Your task to perform on an android device: turn off airplane mode Image 0: 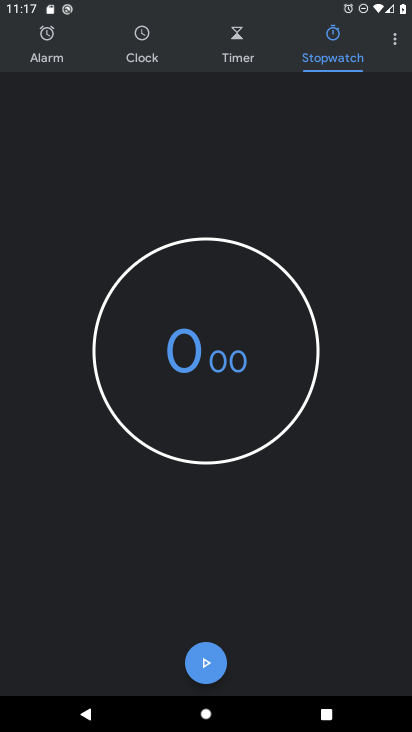
Step 0: press home button
Your task to perform on an android device: turn off airplane mode Image 1: 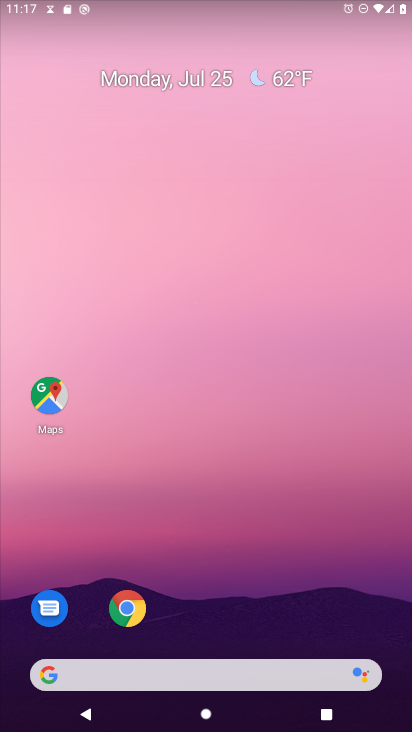
Step 1: drag from (205, 677) to (183, 134)
Your task to perform on an android device: turn off airplane mode Image 2: 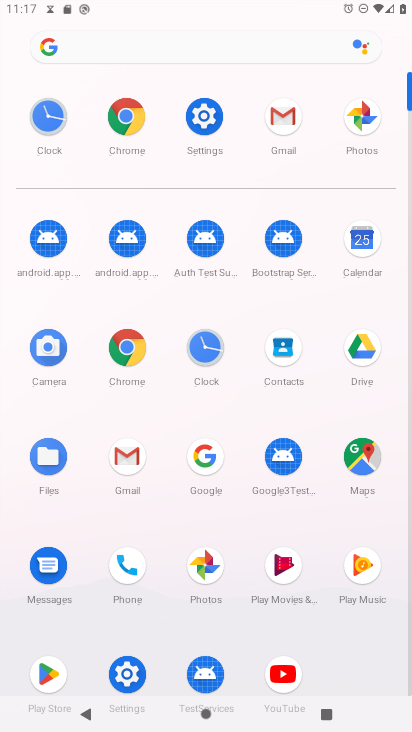
Step 2: click (200, 114)
Your task to perform on an android device: turn off airplane mode Image 3: 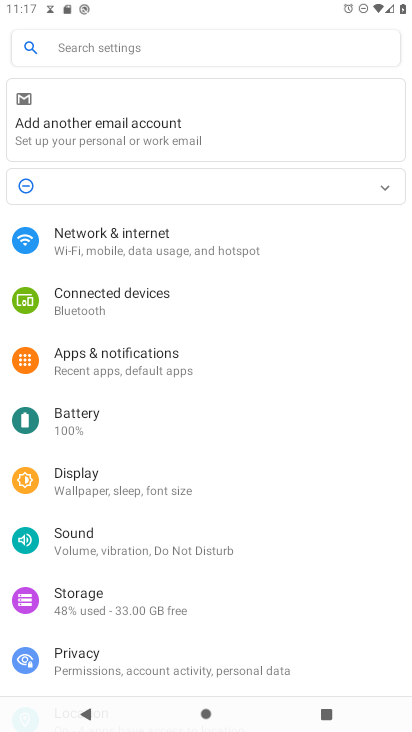
Step 3: click (133, 245)
Your task to perform on an android device: turn off airplane mode Image 4: 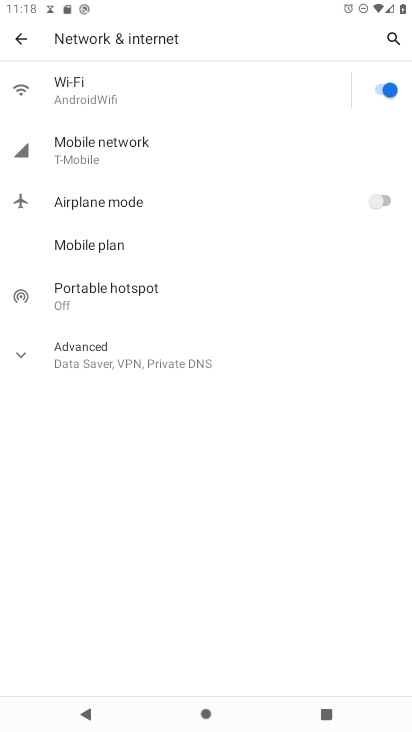
Step 4: task complete